Your task to perform on an android device: show emergency info Image 0: 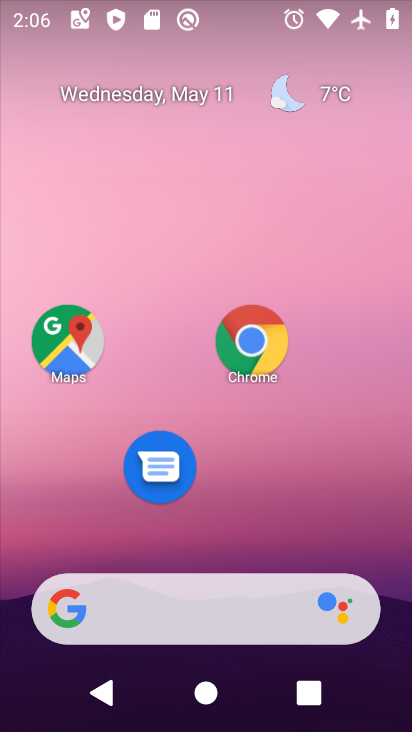
Step 0: drag from (106, 604) to (252, 137)
Your task to perform on an android device: show emergency info Image 1: 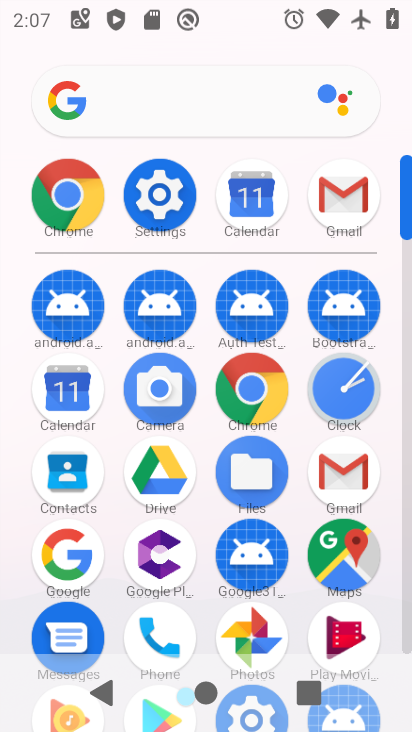
Step 1: click (161, 196)
Your task to perform on an android device: show emergency info Image 2: 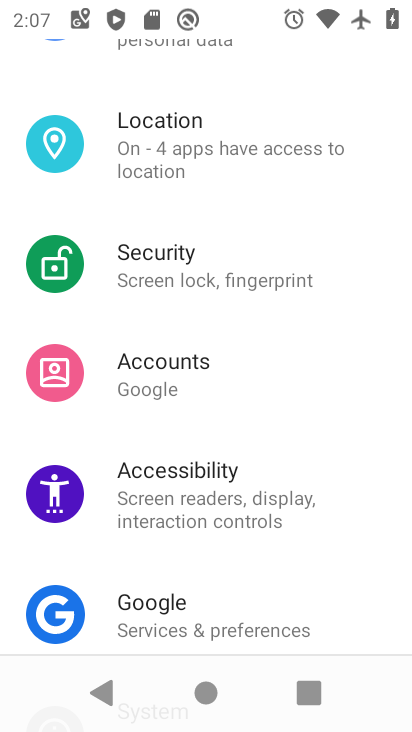
Step 2: drag from (259, 617) to (390, 59)
Your task to perform on an android device: show emergency info Image 3: 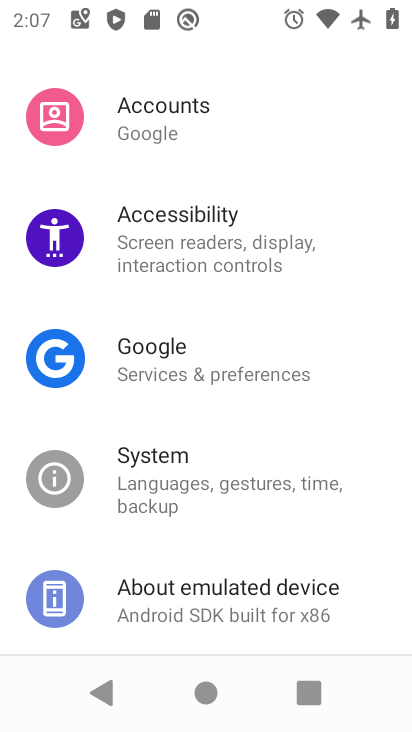
Step 3: click (195, 590)
Your task to perform on an android device: show emergency info Image 4: 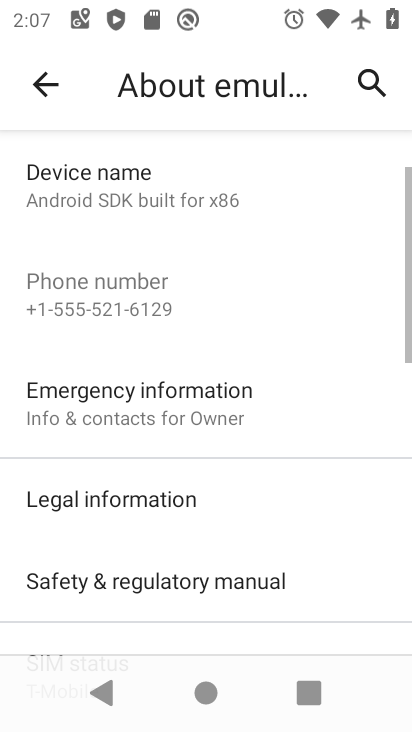
Step 4: click (179, 397)
Your task to perform on an android device: show emergency info Image 5: 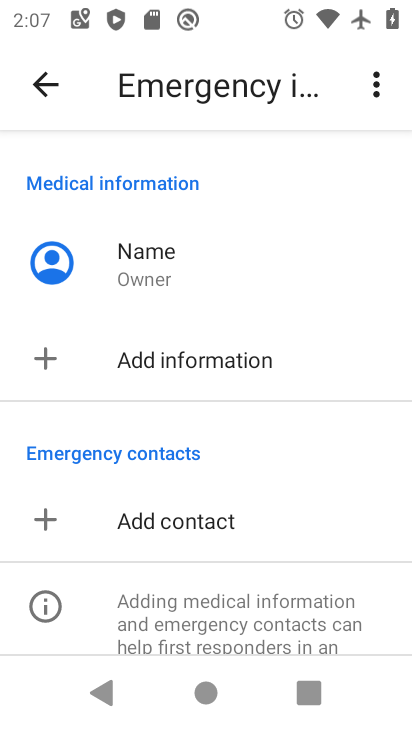
Step 5: task complete